Your task to perform on an android device: turn off improve location accuracy Image 0: 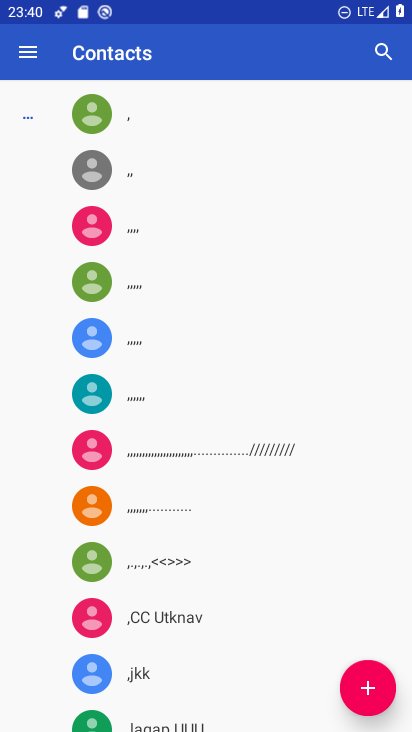
Step 0: press home button
Your task to perform on an android device: turn off improve location accuracy Image 1: 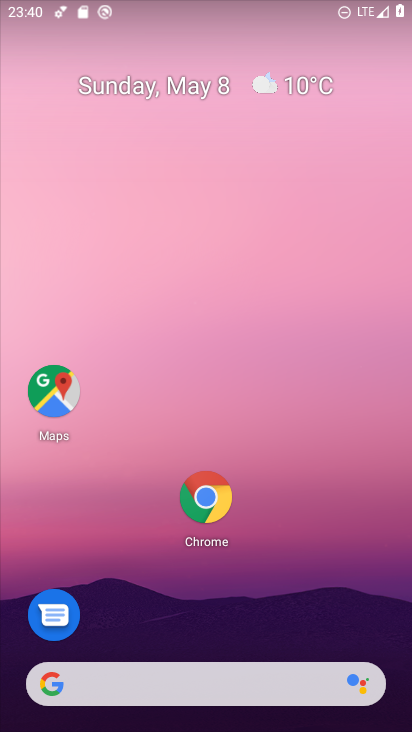
Step 1: drag from (342, 596) to (320, 141)
Your task to perform on an android device: turn off improve location accuracy Image 2: 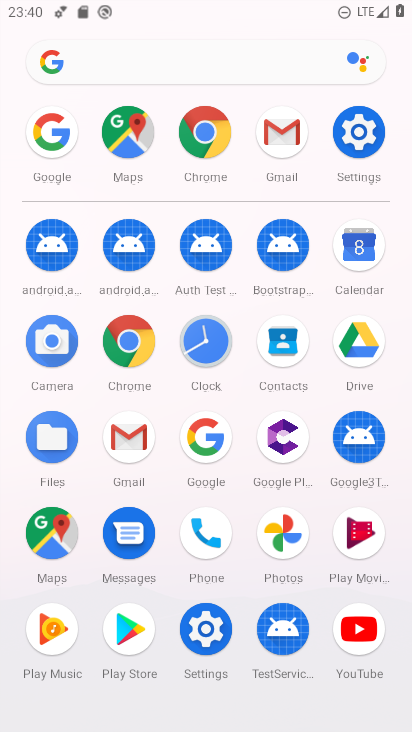
Step 2: click (358, 124)
Your task to perform on an android device: turn off improve location accuracy Image 3: 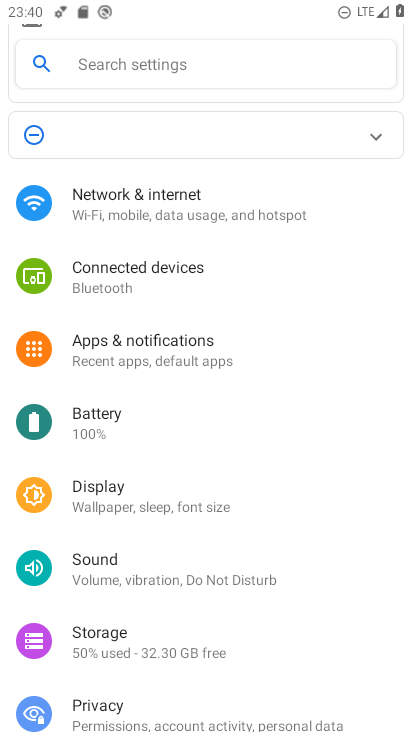
Step 3: drag from (195, 605) to (229, 143)
Your task to perform on an android device: turn off improve location accuracy Image 4: 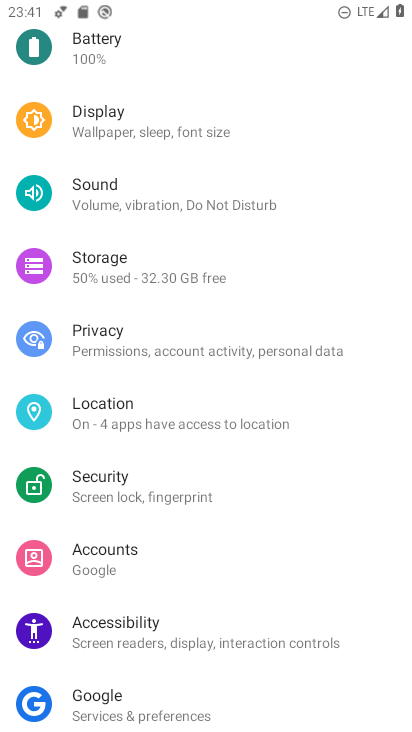
Step 4: drag from (257, 252) to (267, 626)
Your task to perform on an android device: turn off improve location accuracy Image 5: 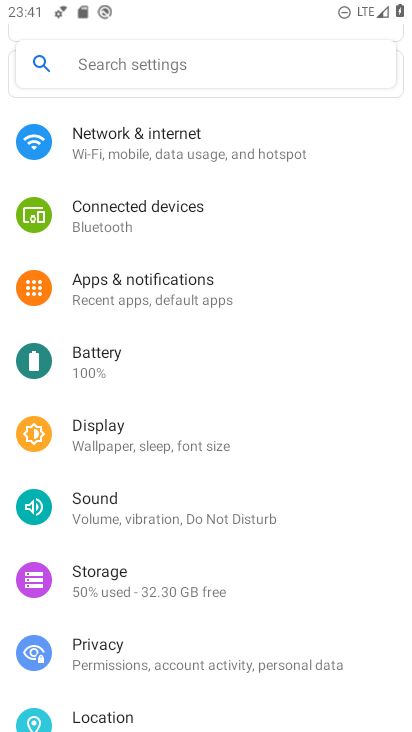
Step 5: click (123, 711)
Your task to perform on an android device: turn off improve location accuracy Image 6: 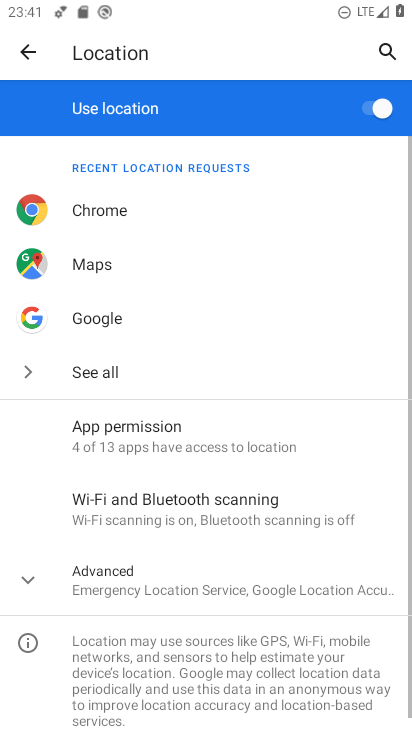
Step 6: click (140, 578)
Your task to perform on an android device: turn off improve location accuracy Image 7: 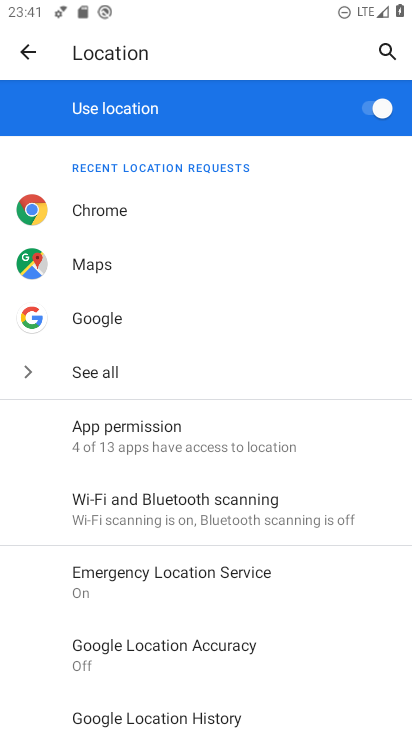
Step 7: drag from (267, 631) to (268, 268)
Your task to perform on an android device: turn off improve location accuracy Image 8: 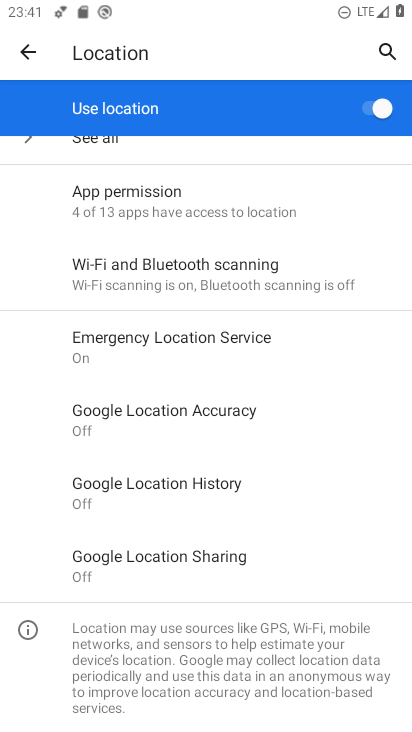
Step 8: click (240, 416)
Your task to perform on an android device: turn off improve location accuracy Image 9: 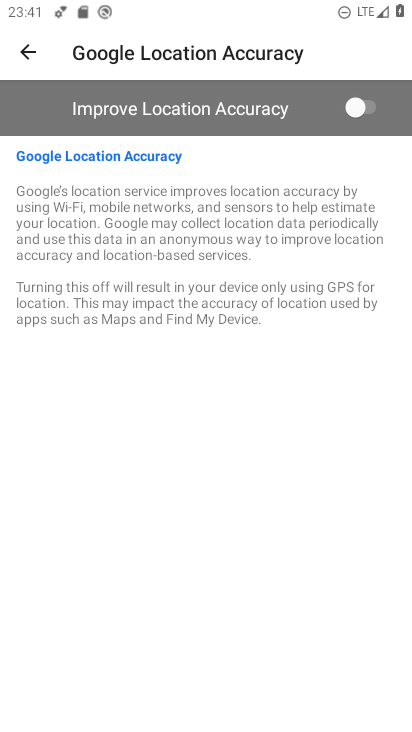
Step 9: task complete